Your task to perform on an android device: Search for vegetarian restaurants on Maps Image 0: 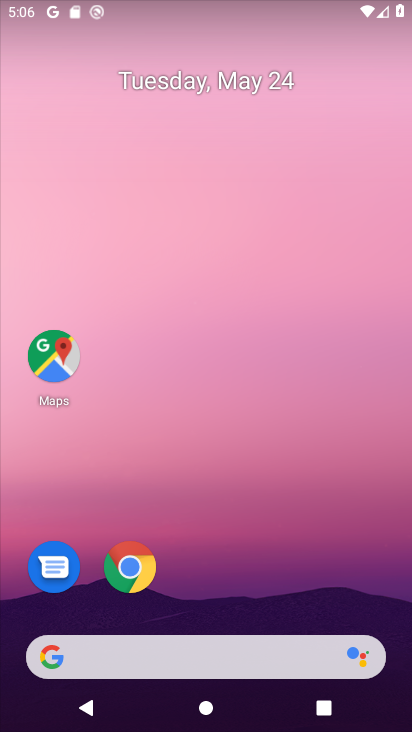
Step 0: click (57, 360)
Your task to perform on an android device: Search for vegetarian restaurants on Maps Image 1: 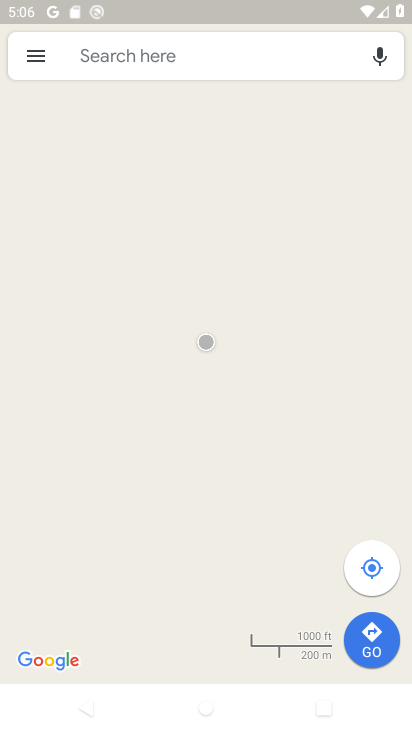
Step 1: click (155, 57)
Your task to perform on an android device: Search for vegetarian restaurants on Maps Image 2: 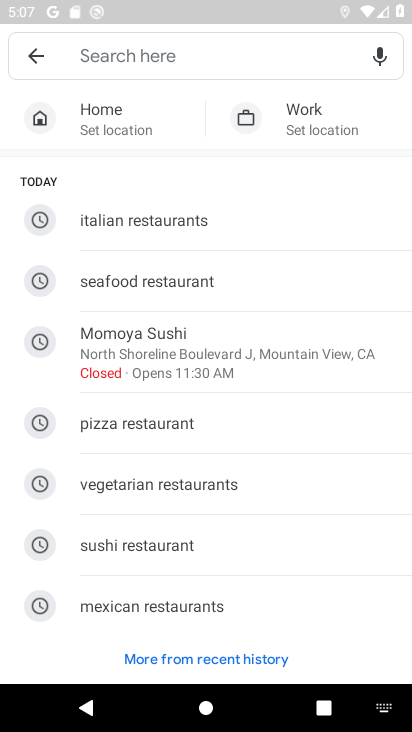
Step 2: type "vegetarian"
Your task to perform on an android device: Search for vegetarian restaurants on Maps Image 3: 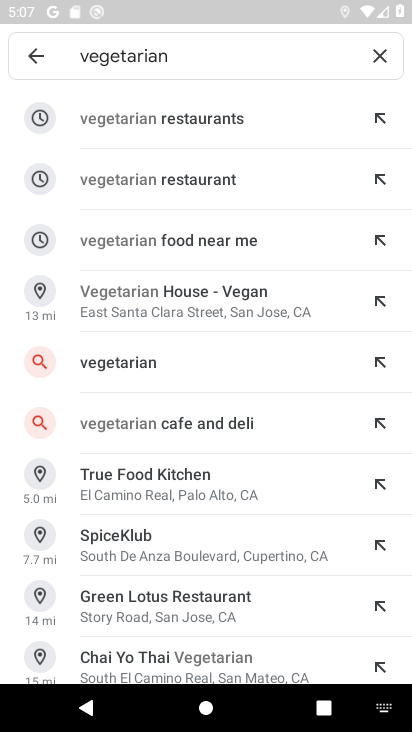
Step 3: click (222, 118)
Your task to perform on an android device: Search for vegetarian restaurants on Maps Image 4: 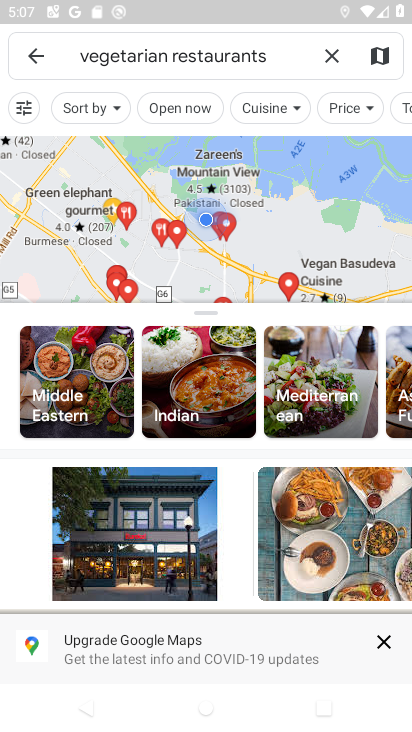
Step 4: task complete